Your task to perform on an android device: What's the weather today? Image 0: 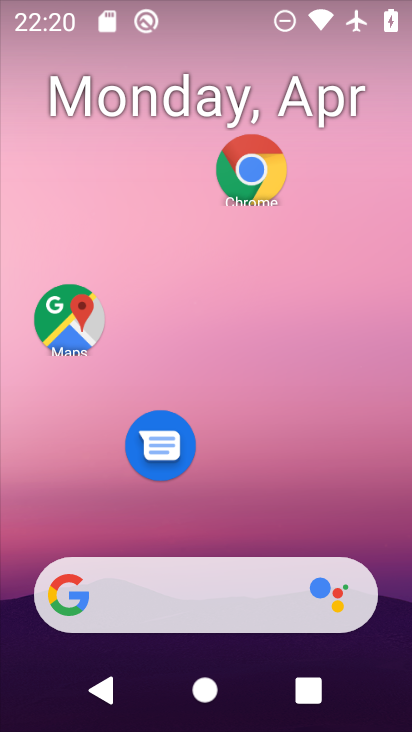
Step 0: drag from (223, 527) to (223, 142)
Your task to perform on an android device: What's the weather today? Image 1: 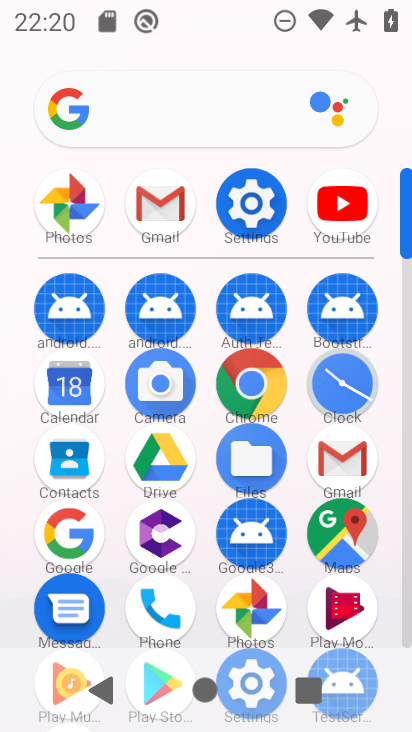
Step 1: click (79, 543)
Your task to perform on an android device: What's the weather today? Image 2: 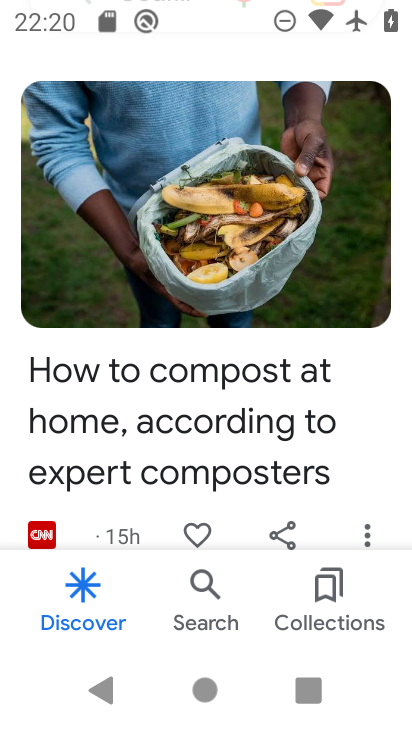
Step 2: drag from (218, 128) to (222, 488)
Your task to perform on an android device: What's the weather today? Image 3: 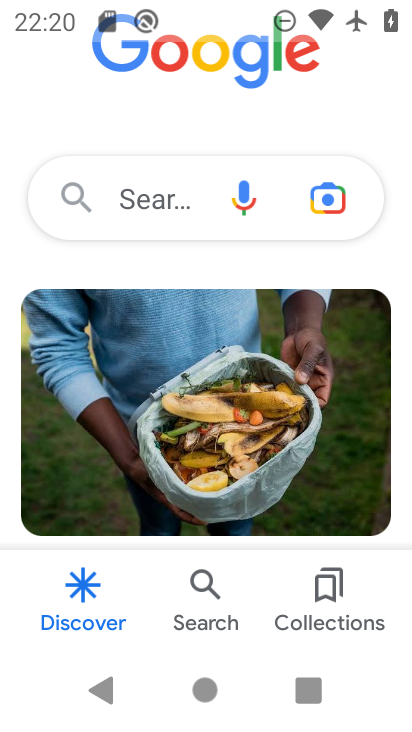
Step 3: drag from (202, 247) to (221, 424)
Your task to perform on an android device: What's the weather today? Image 4: 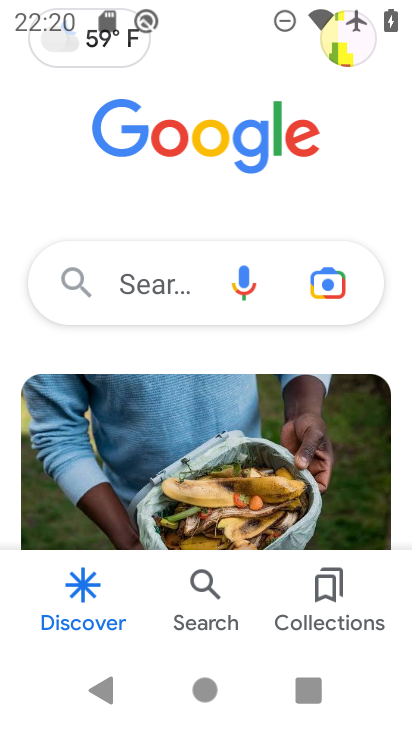
Step 4: drag from (198, 443) to (197, 215)
Your task to perform on an android device: What's the weather today? Image 5: 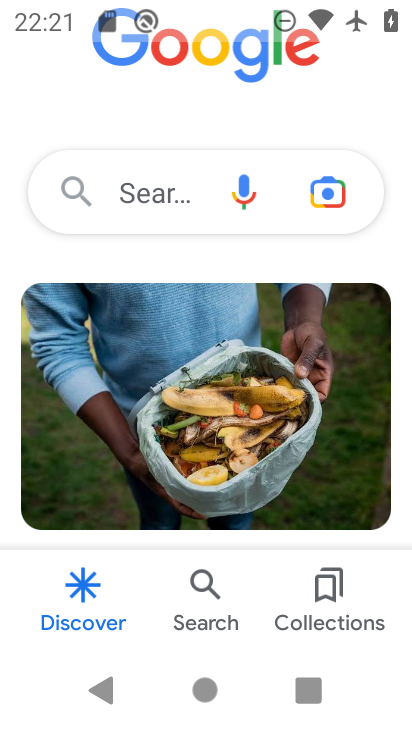
Step 5: drag from (268, 375) to (215, 395)
Your task to perform on an android device: What's the weather today? Image 6: 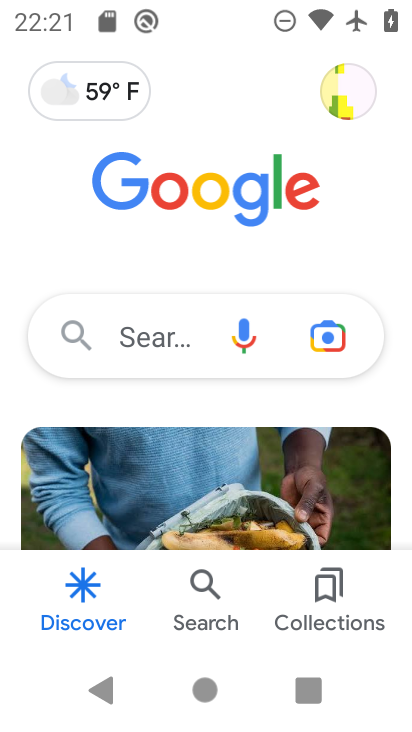
Step 6: click (113, 89)
Your task to perform on an android device: What's the weather today? Image 7: 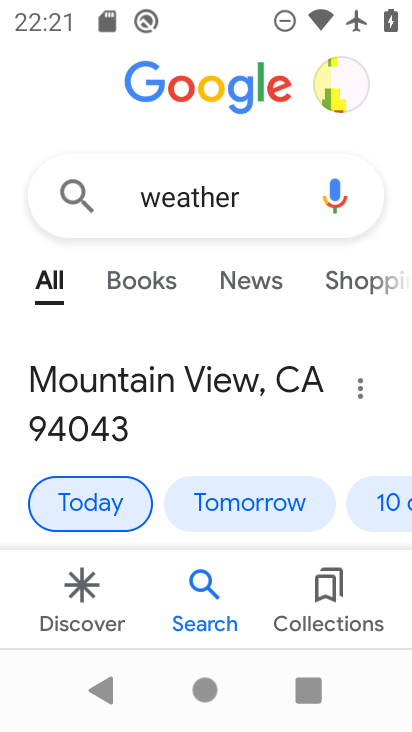
Step 7: task complete